Your task to perform on an android device: Open the stopwatch Image 0: 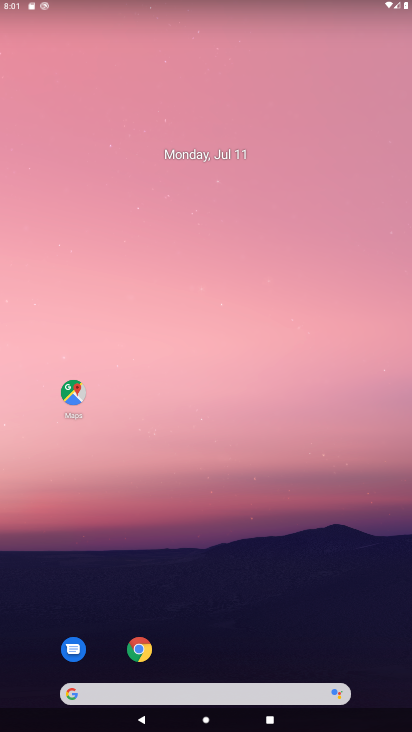
Step 0: drag from (283, 606) to (283, 13)
Your task to perform on an android device: Open the stopwatch Image 1: 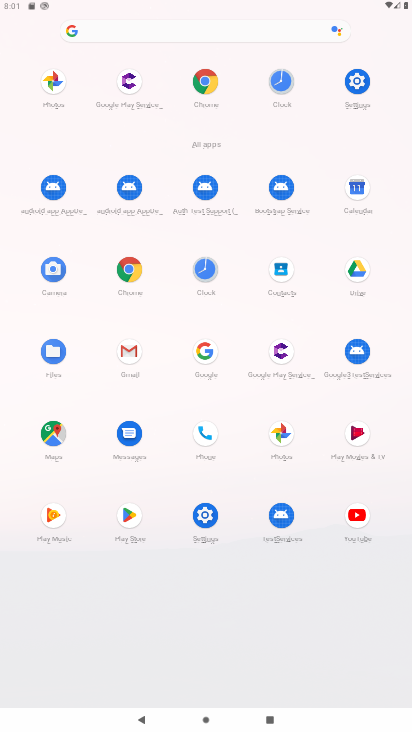
Step 1: click (206, 272)
Your task to perform on an android device: Open the stopwatch Image 2: 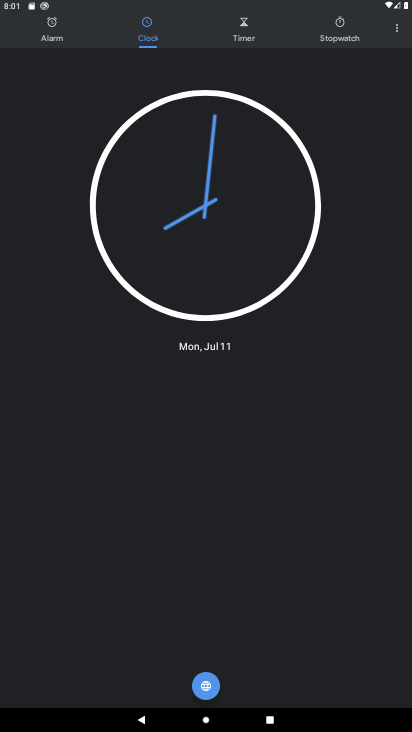
Step 2: click (339, 36)
Your task to perform on an android device: Open the stopwatch Image 3: 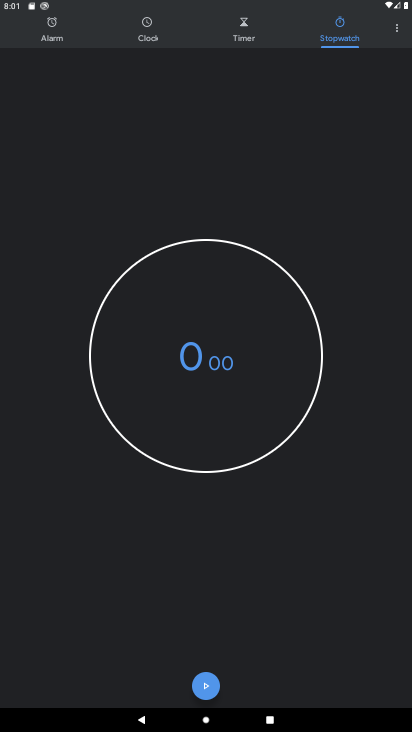
Step 3: click (208, 682)
Your task to perform on an android device: Open the stopwatch Image 4: 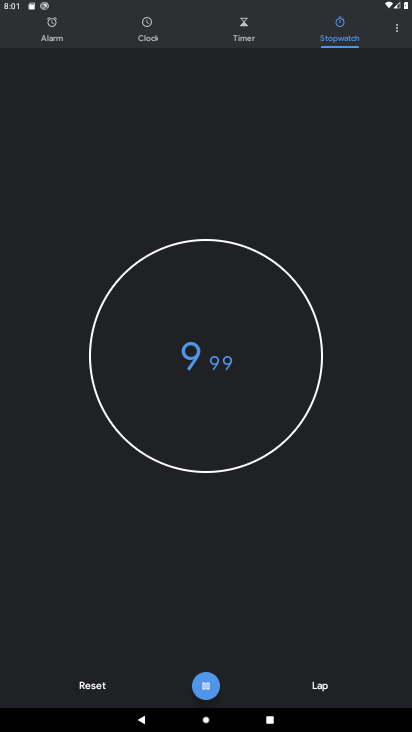
Step 4: task complete